Your task to perform on an android device: What is the recent news? Image 0: 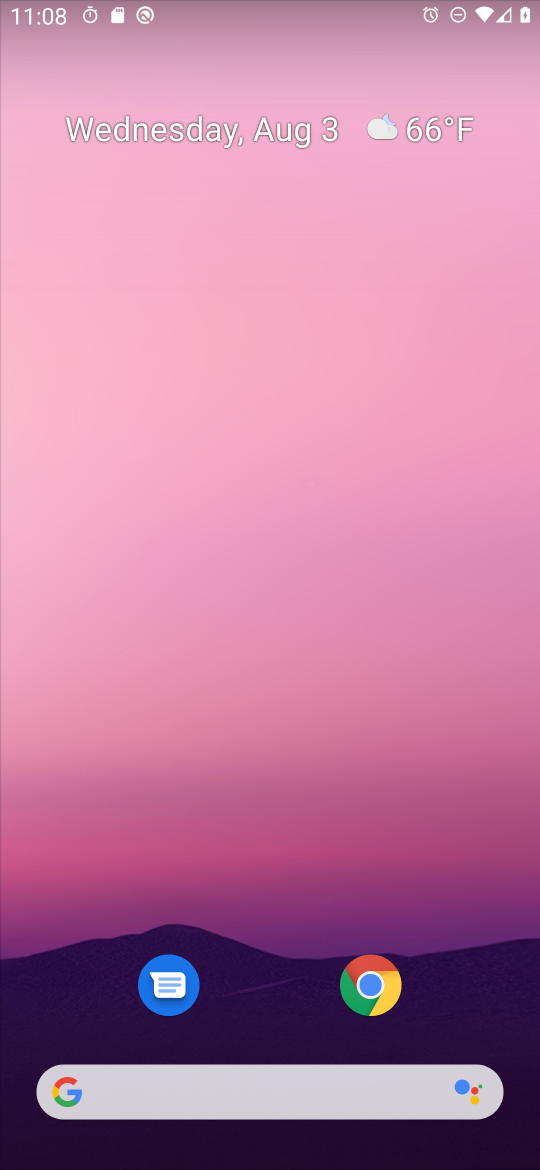
Step 0: drag from (307, 991) to (334, 194)
Your task to perform on an android device: What is the recent news? Image 1: 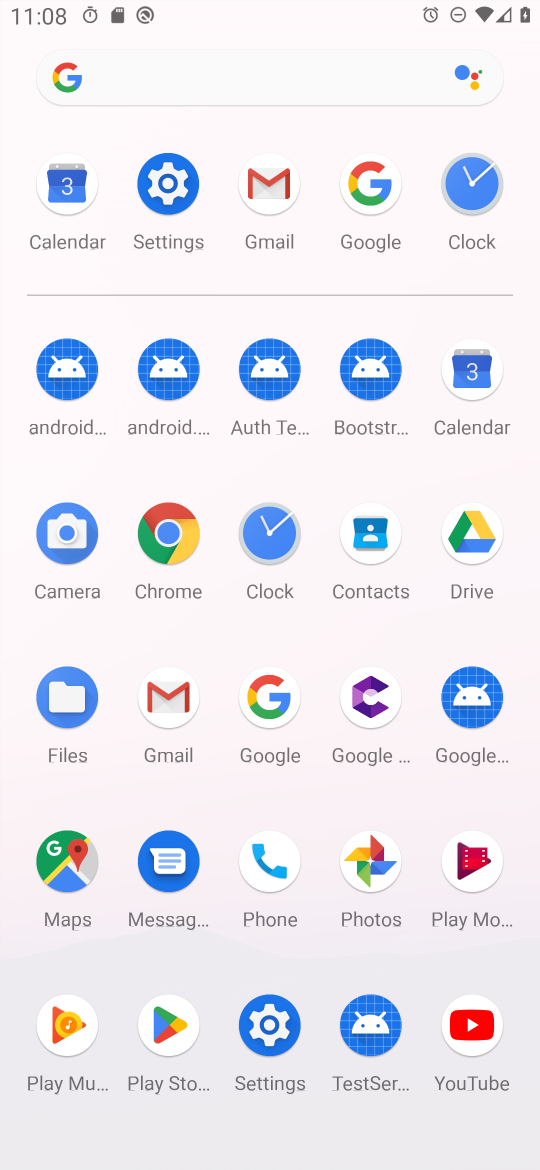
Step 1: click (369, 228)
Your task to perform on an android device: What is the recent news? Image 2: 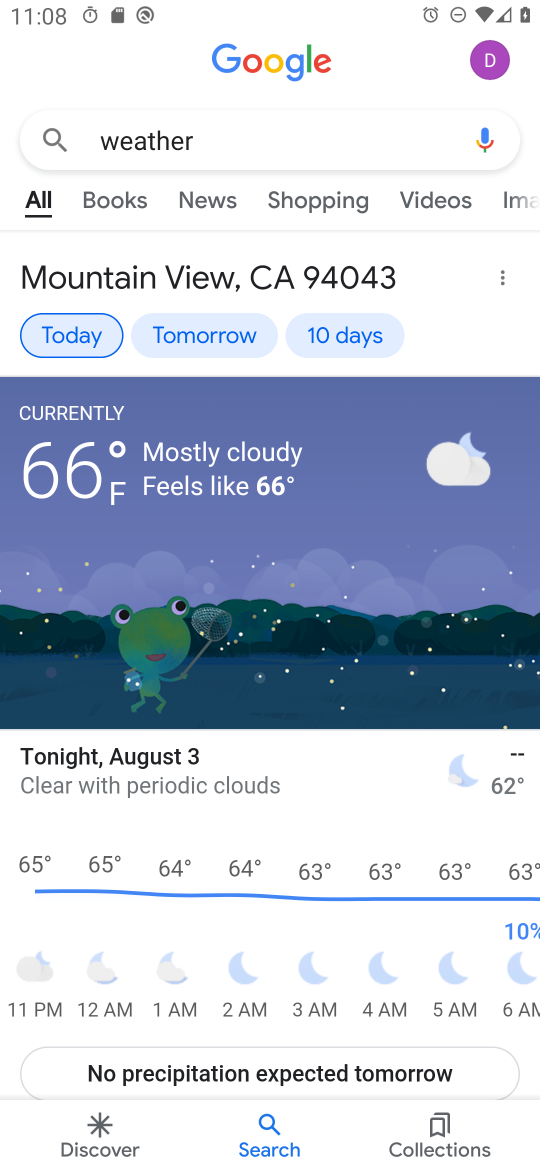
Step 2: click (321, 159)
Your task to perform on an android device: What is the recent news? Image 3: 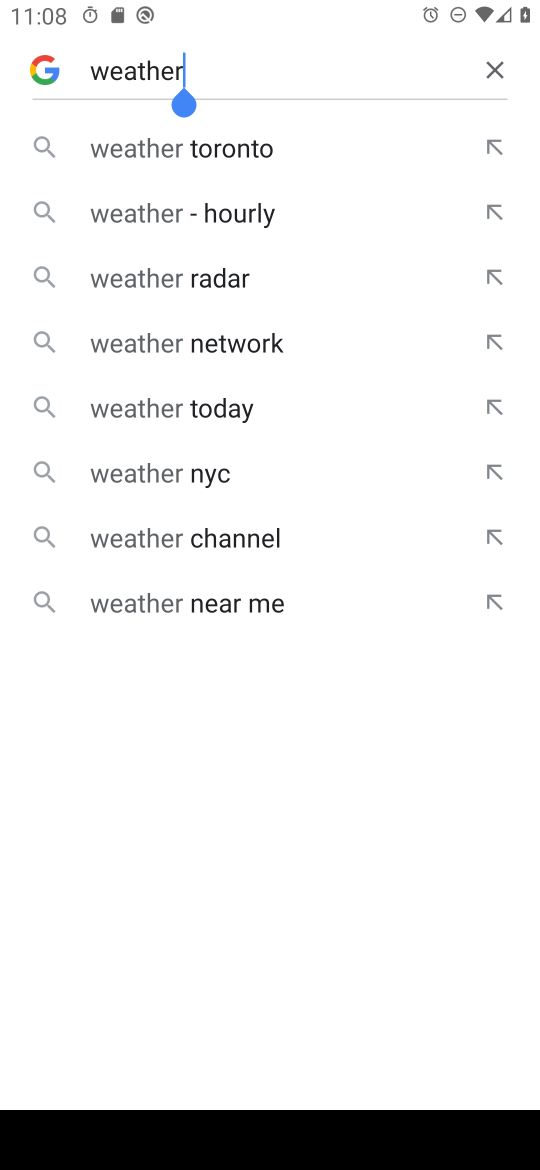
Step 3: click (488, 59)
Your task to perform on an android device: What is the recent news? Image 4: 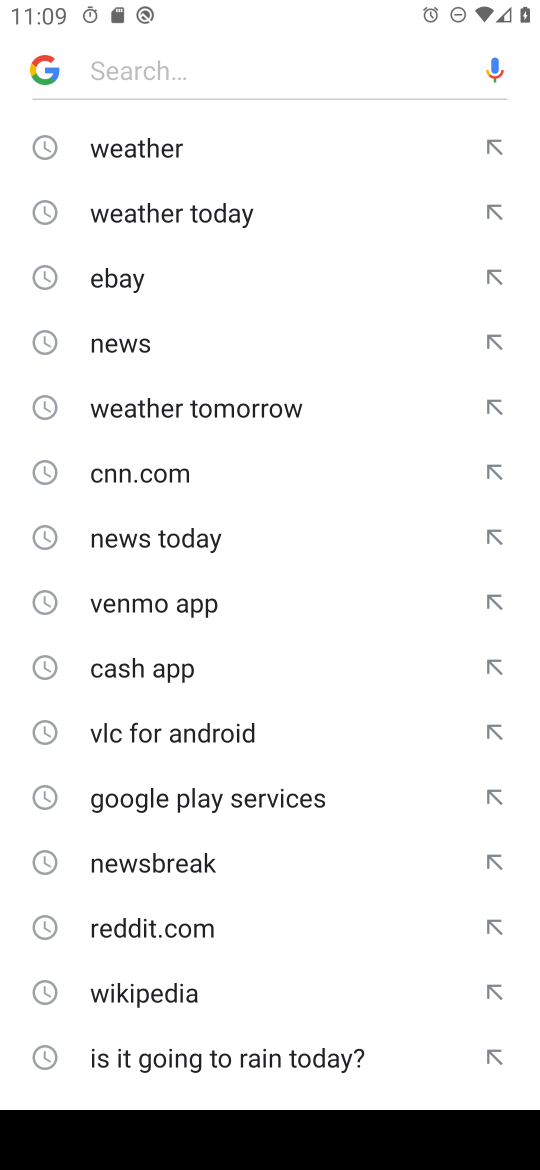
Step 4: click (189, 361)
Your task to perform on an android device: What is the recent news? Image 5: 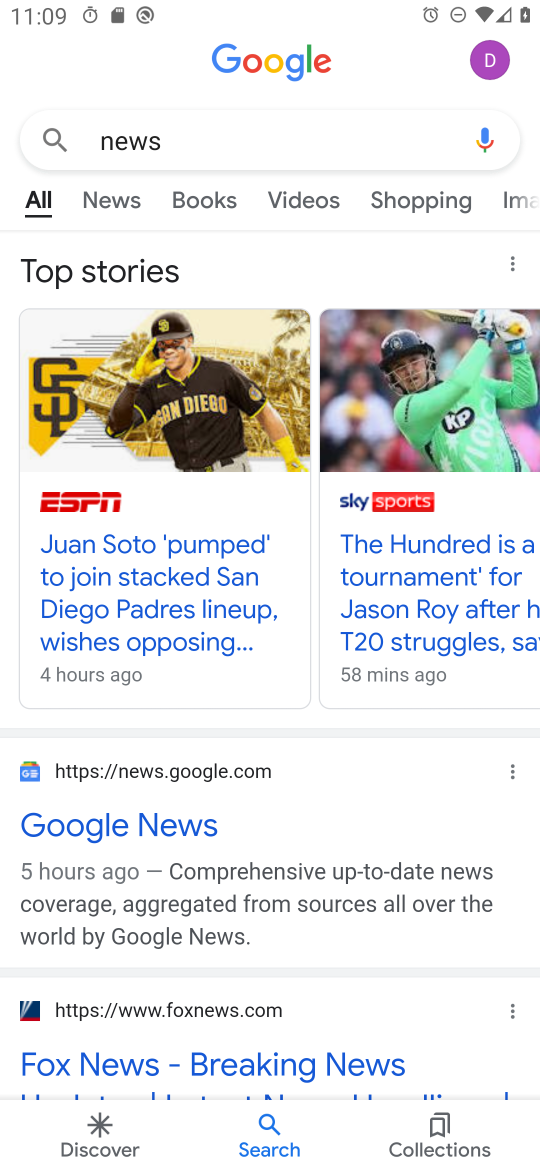
Step 5: click (117, 185)
Your task to perform on an android device: What is the recent news? Image 6: 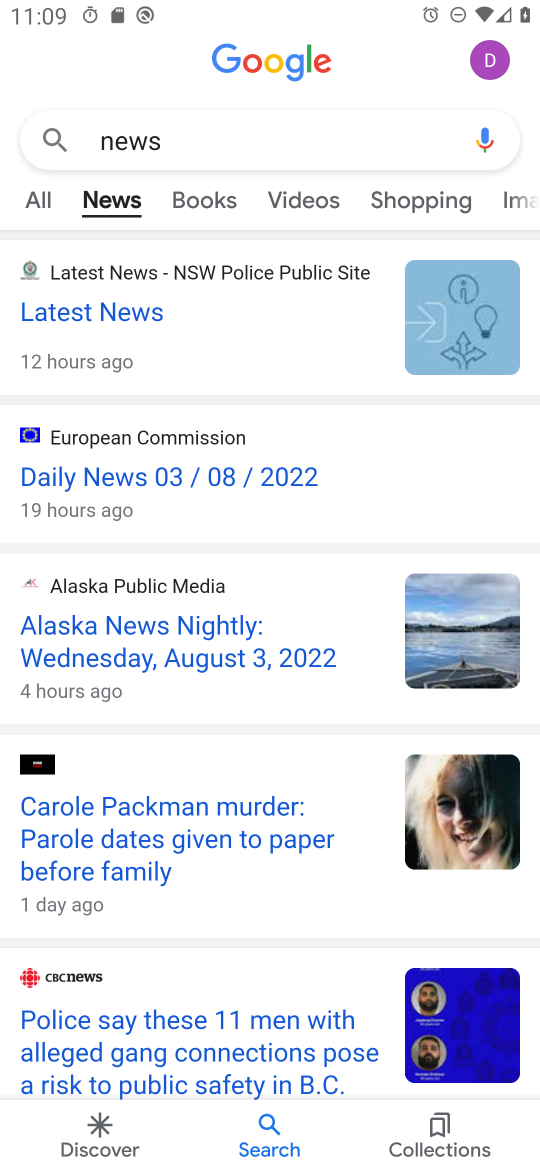
Step 6: task complete